Your task to perform on an android device: Is it going to rain tomorrow? Image 0: 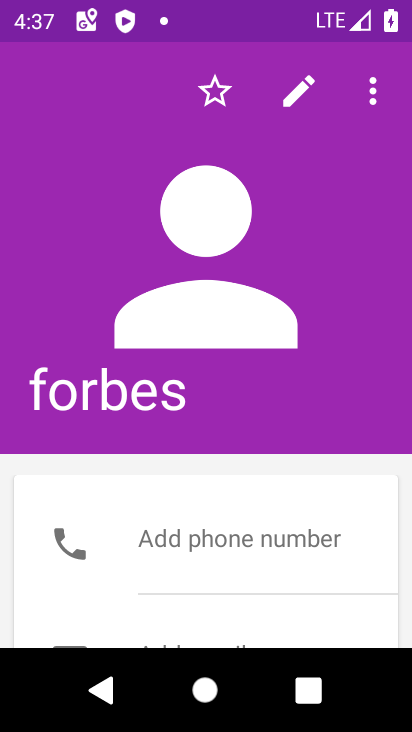
Step 0: press home button
Your task to perform on an android device: Is it going to rain tomorrow? Image 1: 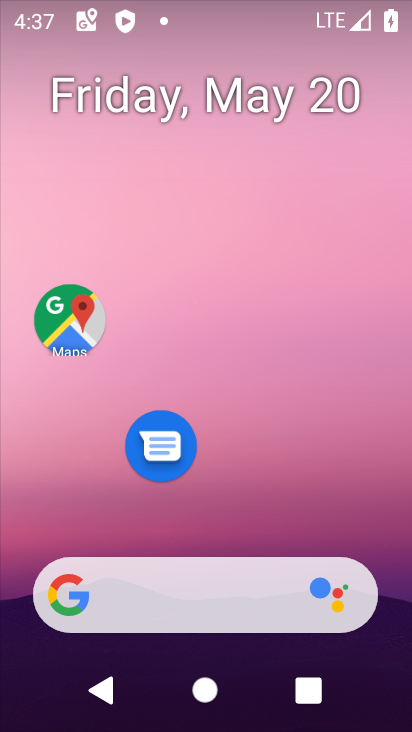
Step 1: click (199, 590)
Your task to perform on an android device: Is it going to rain tomorrow? Image 2: 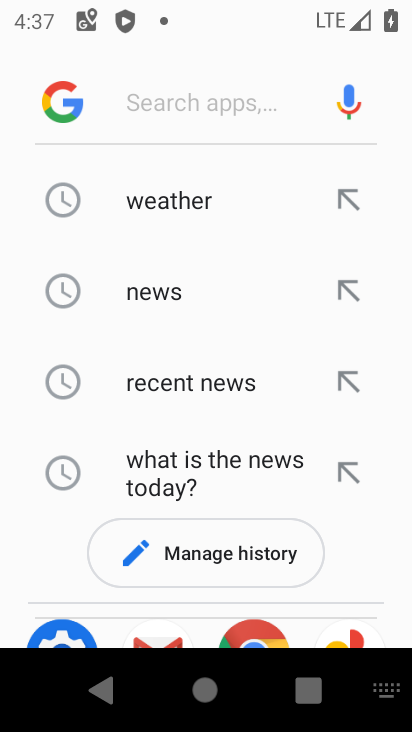
Step 2: click (126, 197)
Your task to perform on an android device: Is it going to rain tomorrow? Image 3: 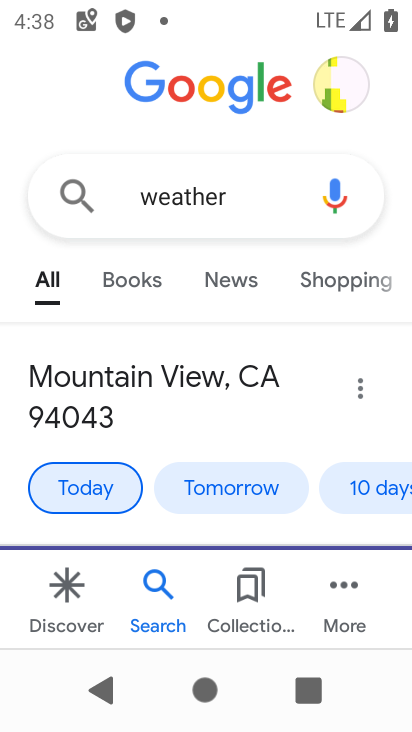
Step 3: drag from (173, 509) to (187, 270)
Your task to perform on an android device: Is it going to rain tomorrow? Image 4: 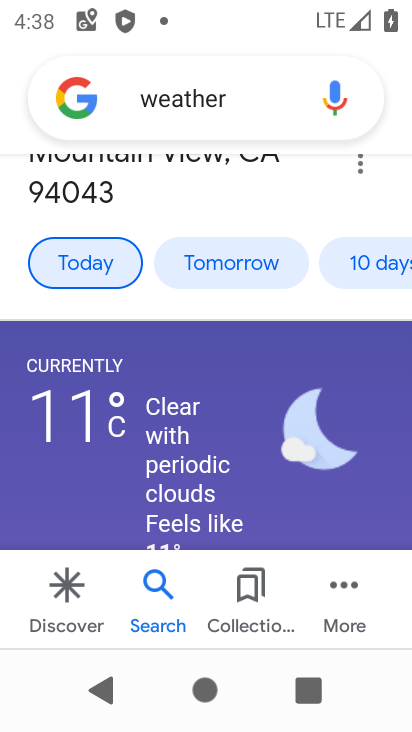
Step 4: click (215, 267)
Your task to perform on an android device: Is it going to rain tomorrow? Image 5: 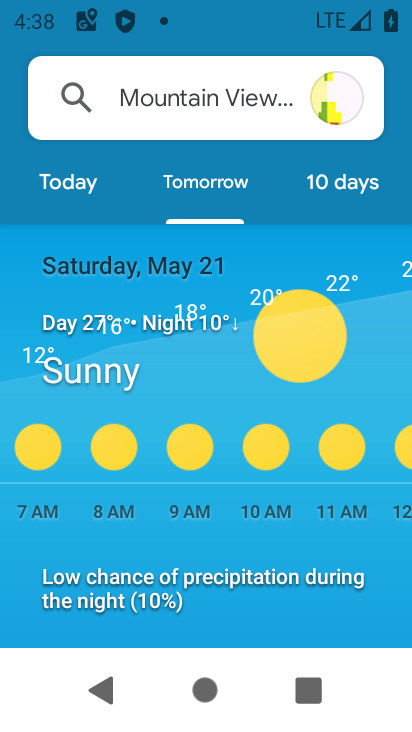
Step 5: task complete